Your task to perform on an android device: Go to Google Image 0: 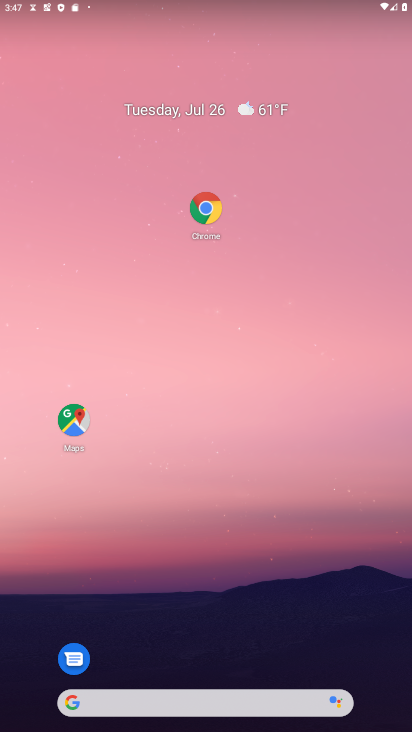
Step 0: click (160, 707)
Your task to perform on an android device: Go to Google Image 1: 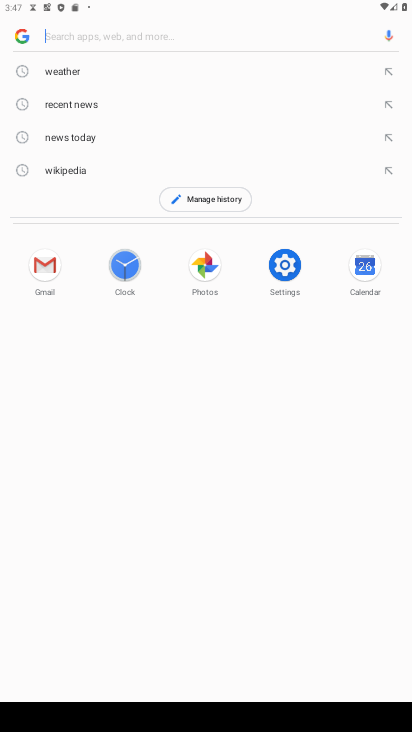
Step 1: task complete